Your task to perform on an android device: visit the assistant section in the google photos Image 0: 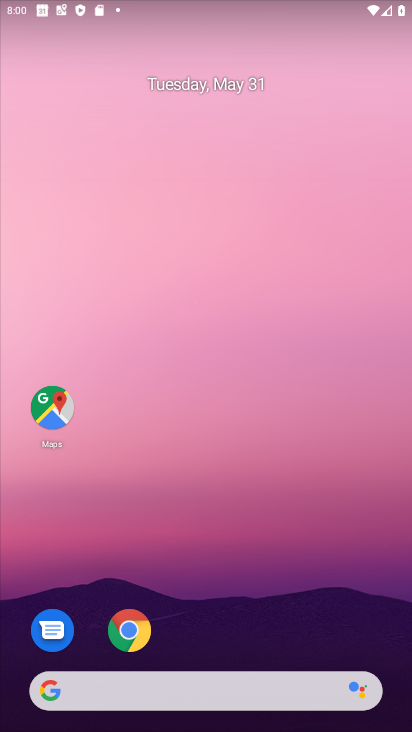
Step 0: drag from (279, 638) to (313, 220)
Your task to perform on an android device: visit the assistant section in the google photos Image 1: 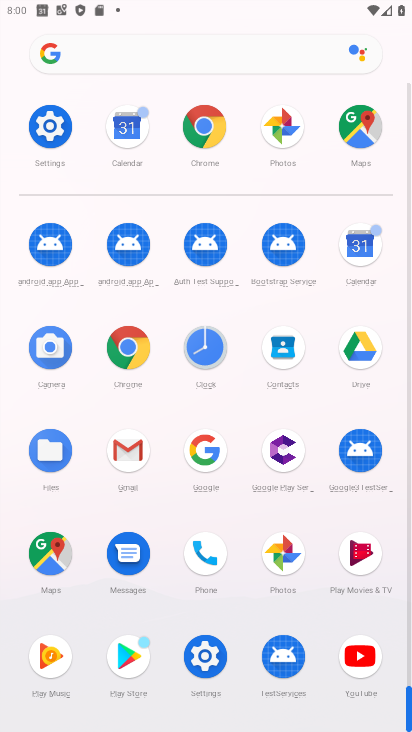
Step 1: click (264, 558)
Your task to perform on an android device: visit the assistant section in the google photos Image 2: 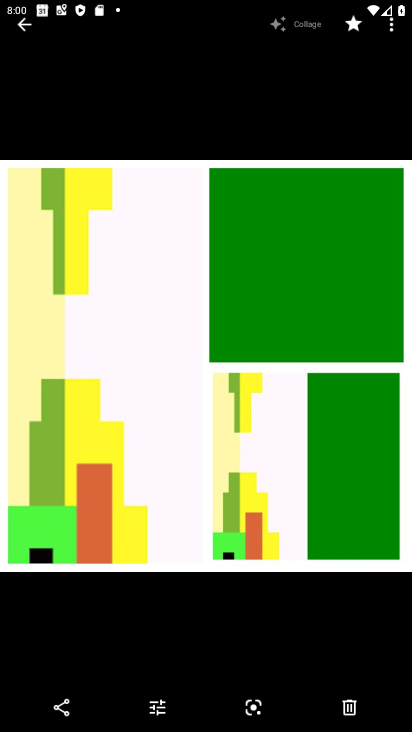
Step 2: click (36, 28)
Your task to perform on an android device: visit the assistant section in the google photos Image 3: 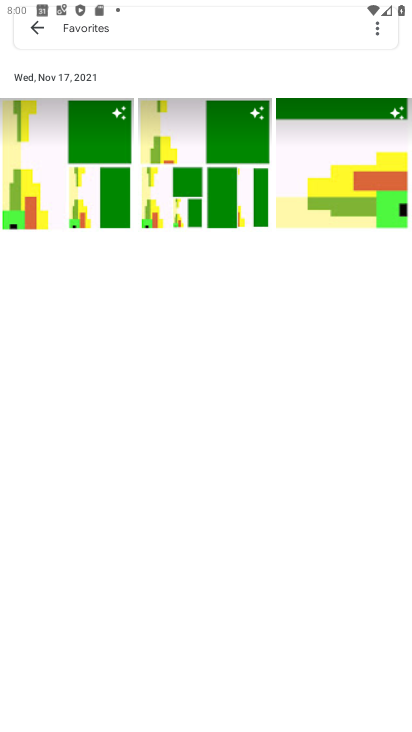
Step 3: click (36, 31)
Your task to perform on an android device: visit the assistant section in the google photos Image 4: 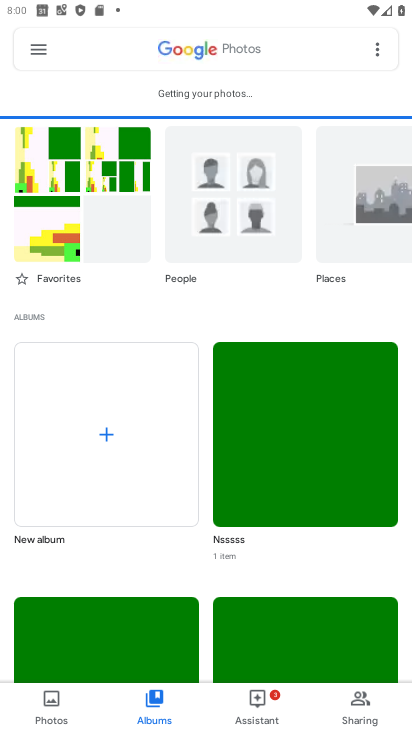
Step 4: click (258, 696)
Your task to perform on an android device: visit the assistant section in the google photos Image 5: 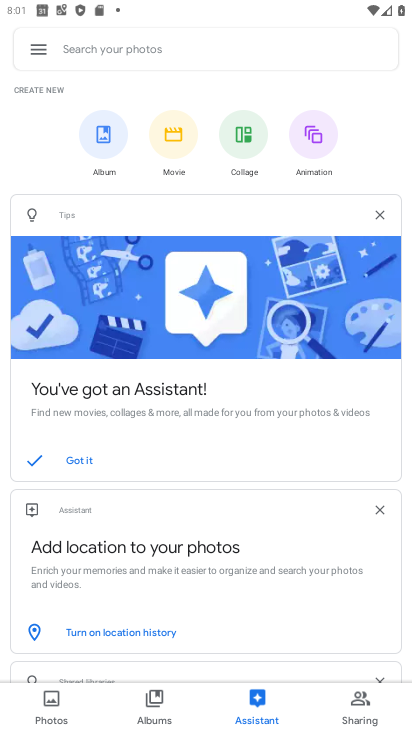
Step 5: task complete